Your task to perform on an android device: Go to notification settings Image 0: 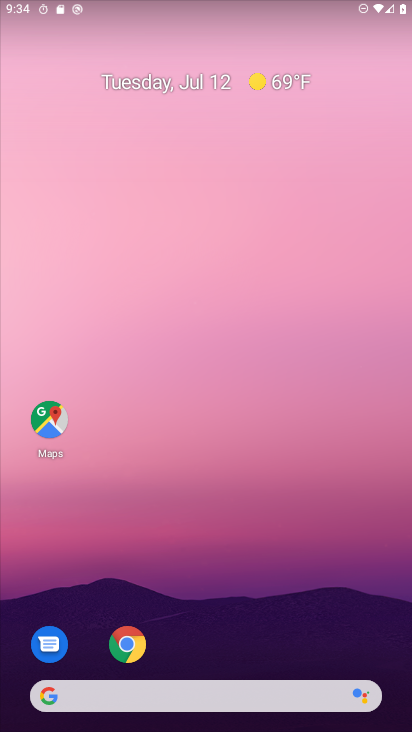
Step 0: press home button
Your task to perform on an android device: Go to notification settings Image 1: 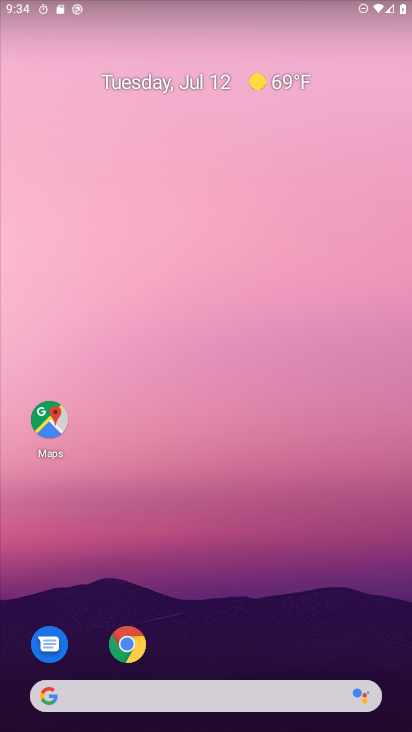
Step 1: drag from (245, 645) to (320, 15)
Your task to perform on an android device: Go to notification settings Image 2: 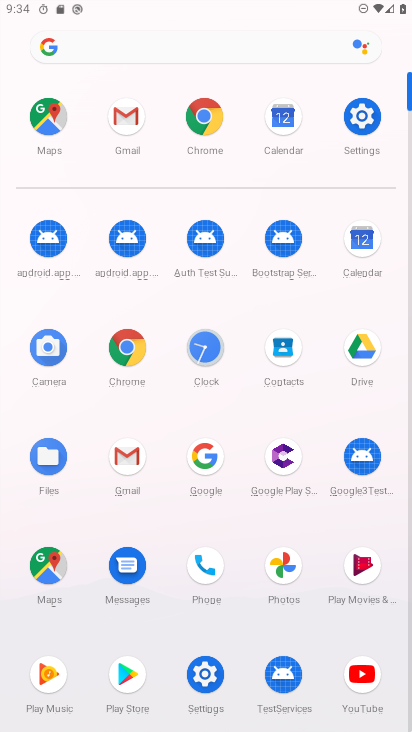
Step 2: click (360, 108)
Your task to perform on an android device: Go to notification settings Image 3: 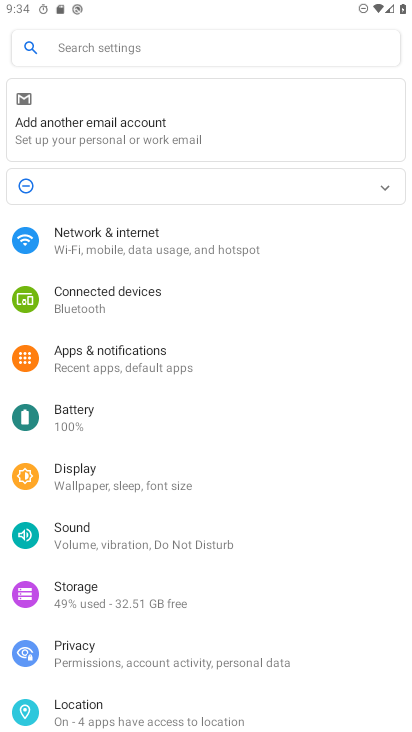
Step 3: click (134, 357)
Your task to perform on an android device: Go to notification settings Image 4: 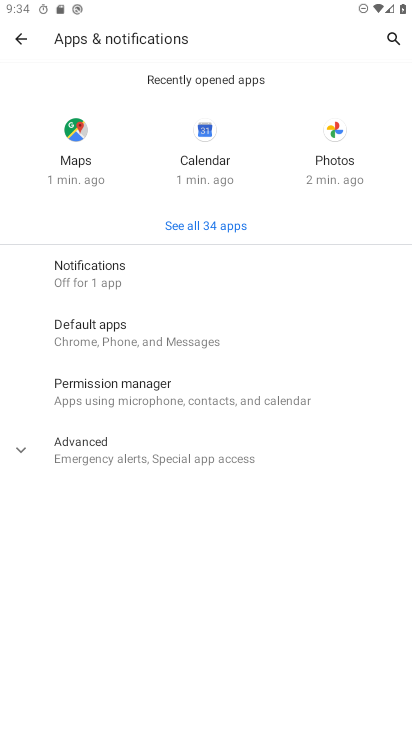
Step 4: click (128, 265)
Your task to perform on an android device: Go to notification settings Image 5: 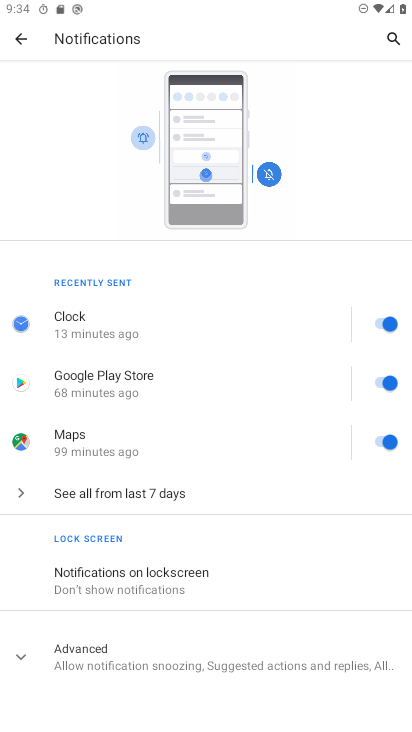
Step 5: click (25, 652)
Your task to perform on an android device: Go to notification settings Image 6: 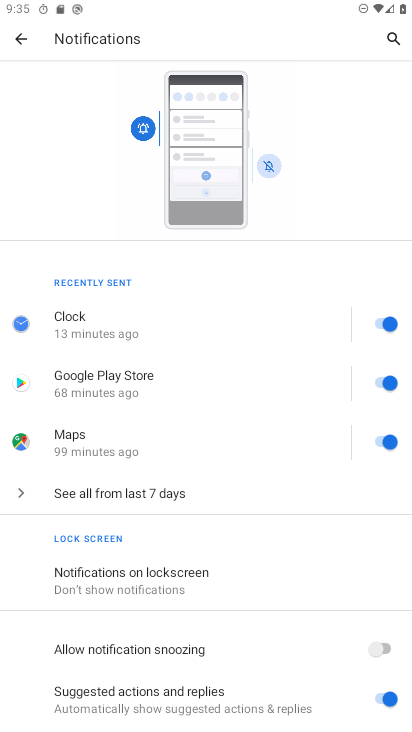
Step 6: task complete